Your task to perform on an android device: change keyboard looks Image 0: 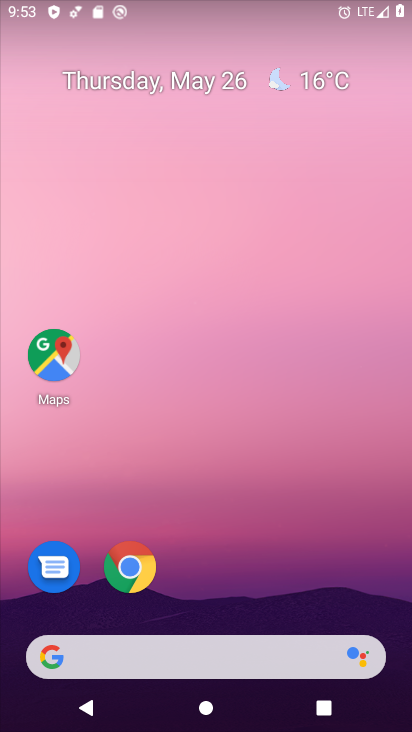
Step 0: drag from (400, 643) to (385, 81)
Your task to perform on an android device: change keyboard looks Image 1: 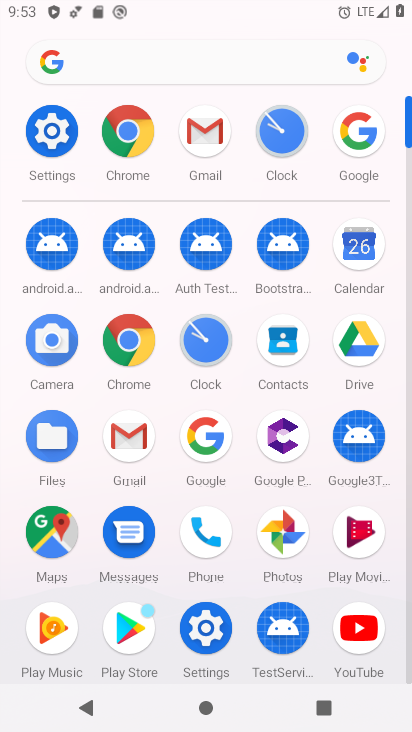
Step 1: click (192, 642)
Your task to perform on an android device: change keyboard looks Image 2: 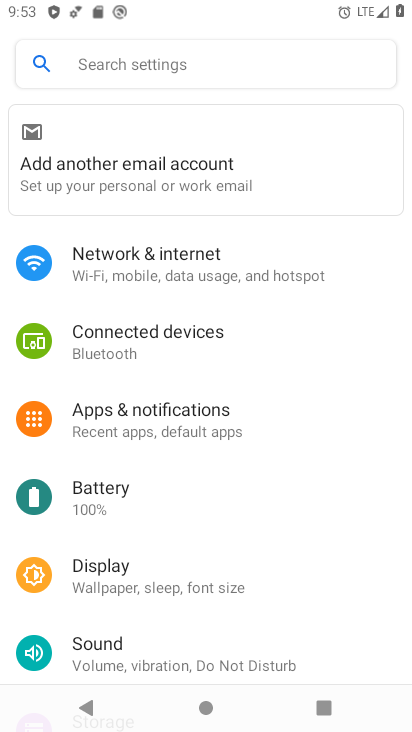
Step 2: drag from (310, 644) to (323, 180)
Your task to perform on an android device: change keyboard looks Image 3: 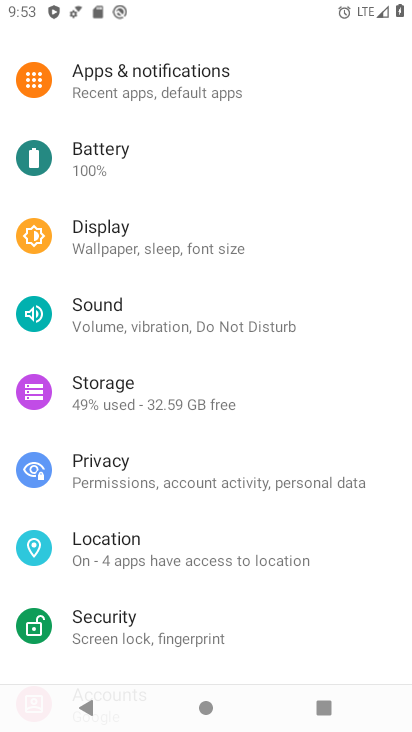
Step 3: drag from (305, 650) to (330, 156)
Your task to perform on an android device: change keyboard looks Image 4: 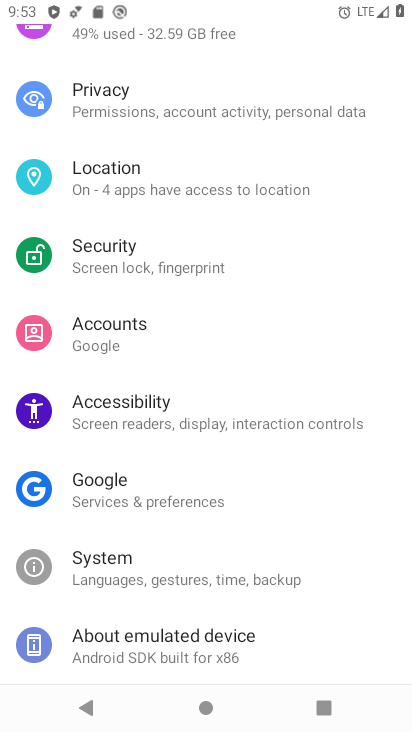
Step 4: click (89, 575)
Your task to perform on an android device: change keyboard looks Image 5: 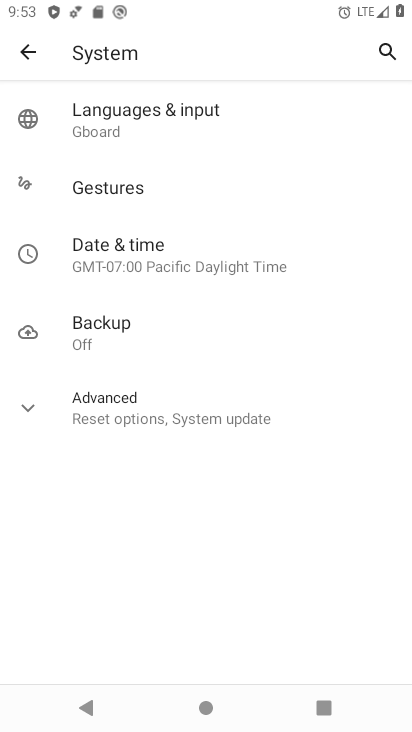
Step 5: click (118, 126)
Your task to perform on an android device: change keyboard looks Image 6: 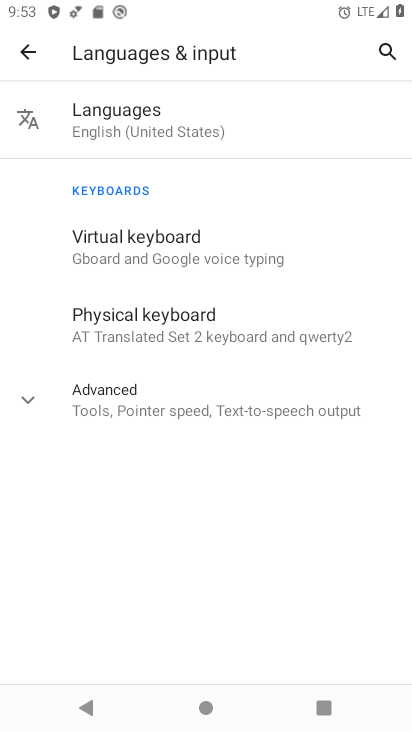
Step 6: click (99, 236)
Your task to perform on an android device: change keyboard looks Image 7: 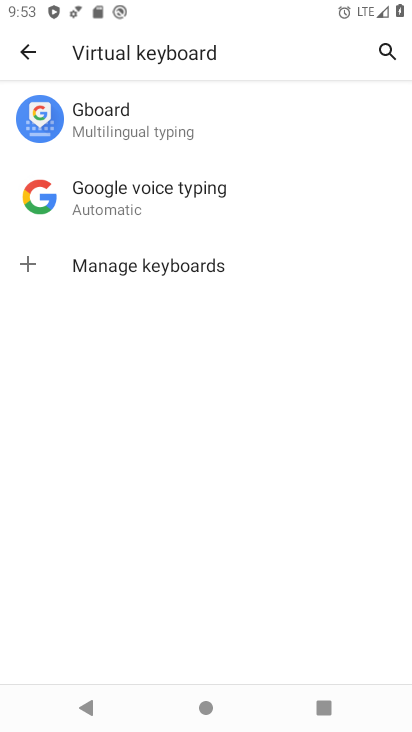
Step 7: click (120, 126)
Your task to perform on an android device: change keyboard looks Image 8: 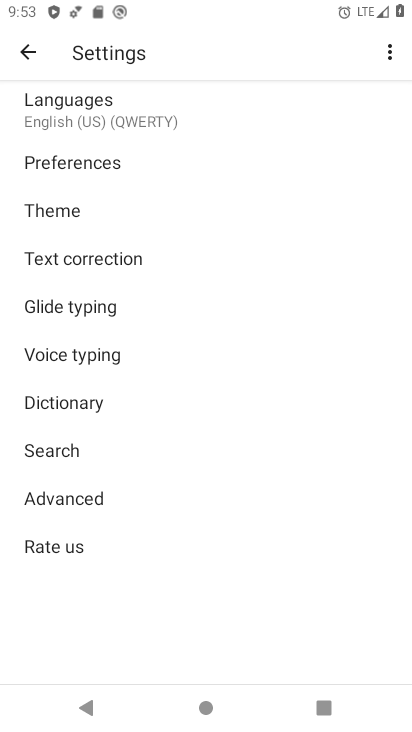
Step 8: click (57, 210)
Your task to perform on an android device: change keyboard looks Image 9: 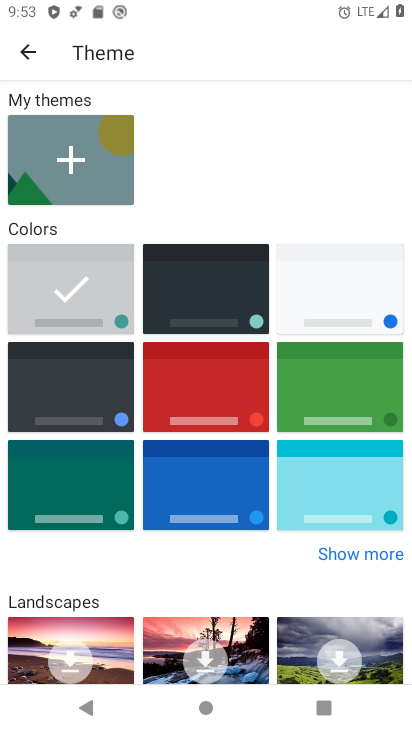
Step 9: click (301, 495)
Your task to perform on an android device: change keyboard looks Image 10: 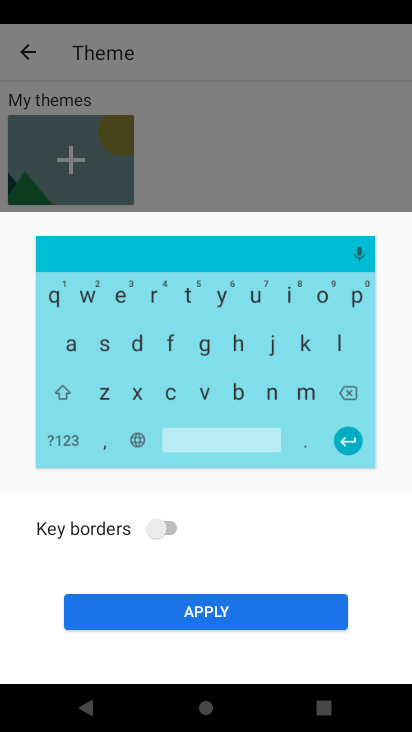
Step 10: click (165, 526)
Your task to perform on an android device: change keyboard looks Image 11: 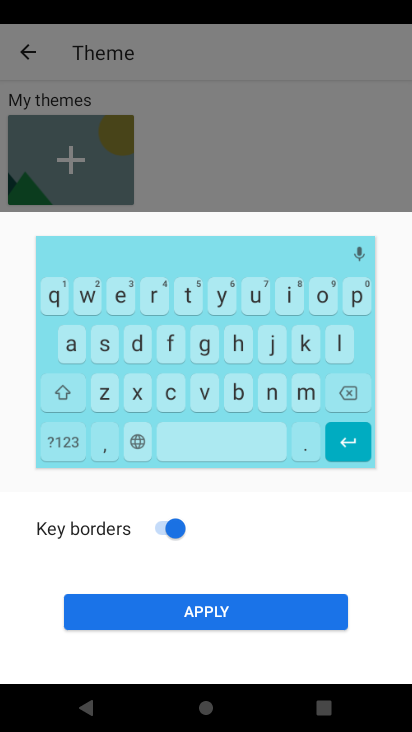
Step 11: click (224, 617)
Your task to perform on an android device: change keyboard looks Image 12: 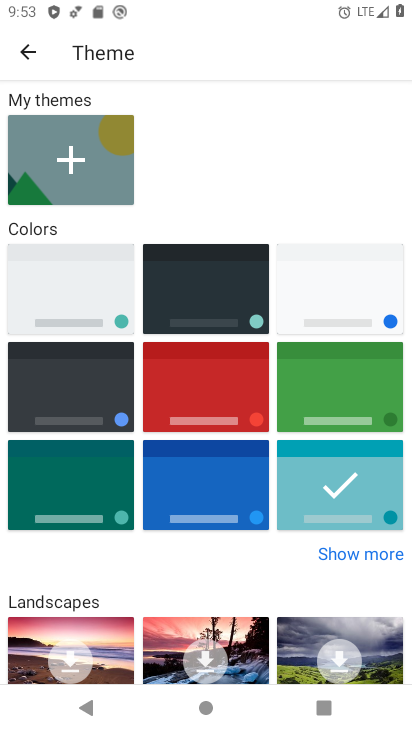
Step 12: task complete